Your task to perform on an android device: add a contact in the contacts app Image 0: 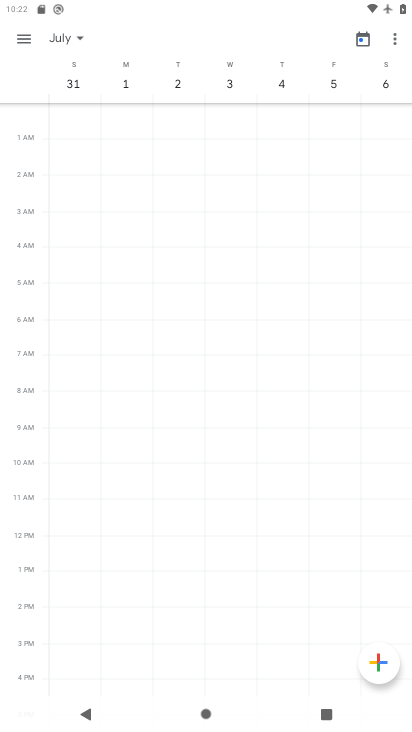
Step 0: press home button
Your task to perform on an android device: add a contact in the contacts app Image 1: 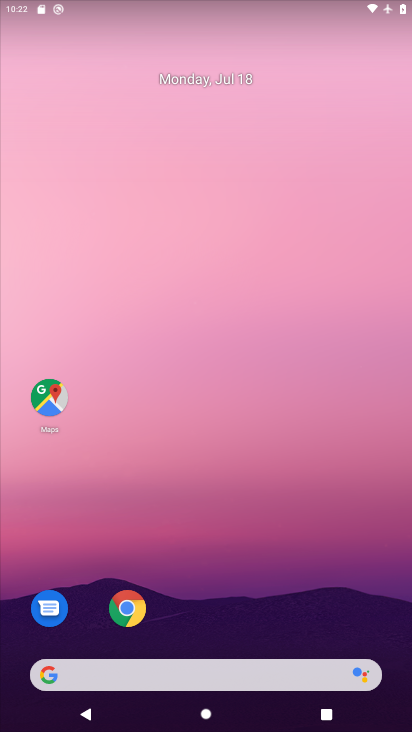
Step 1: drag from (208, 626) to (131, 87)
Your task to perform on an android device: add a contact in the contacts app Image 2: 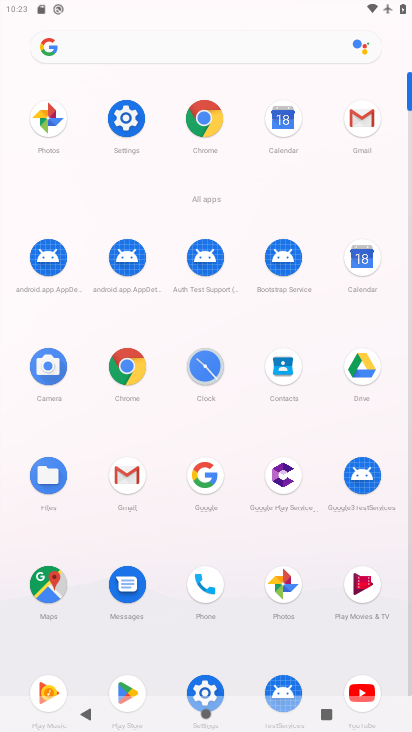
Step 2: click (213, 575)
Your task to perform on an android device: add a contact in the contacts app Image 3: 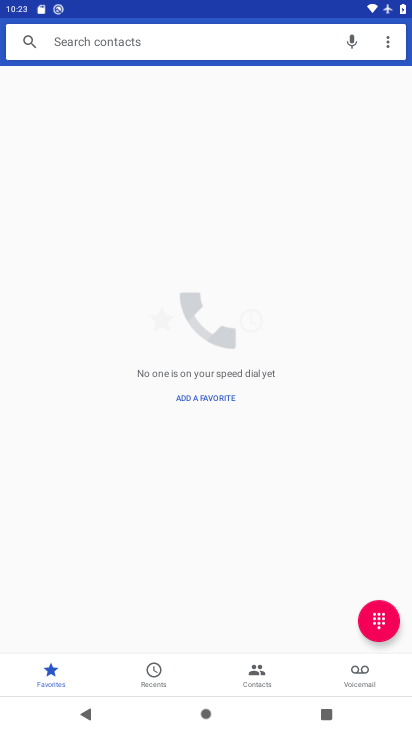
Step 3: click (261, 666)
Your task to perform on an android device: add a contact in the contacts app Image 4: 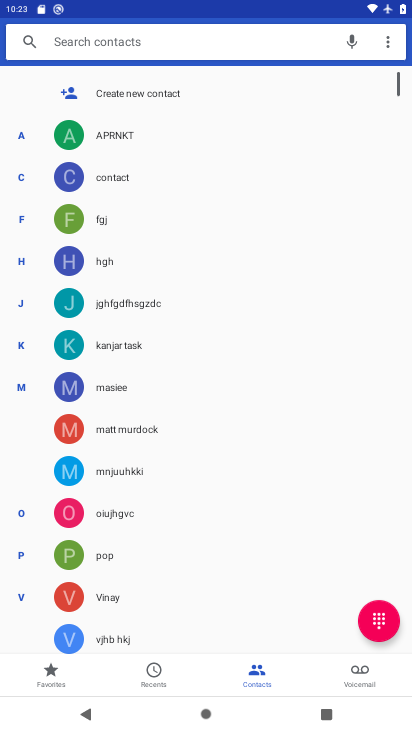
Step 4: click (129, 96)
Your task to perform on an android device: add a contact in the contacts app Image 5: 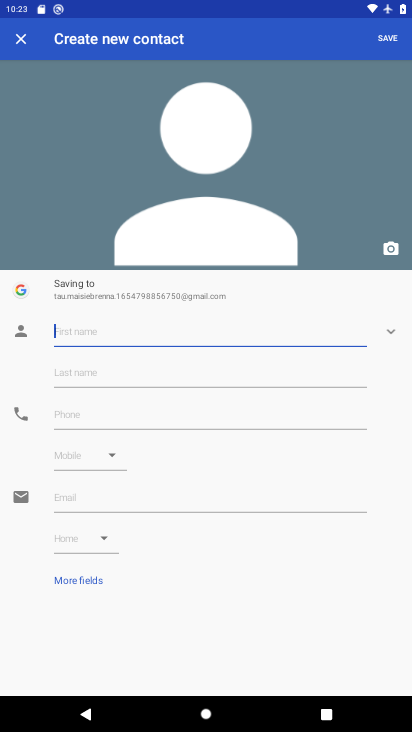
Step 5: type "fgd"
Your task to perform on an android device: add a contact in the contacts app Image 6: 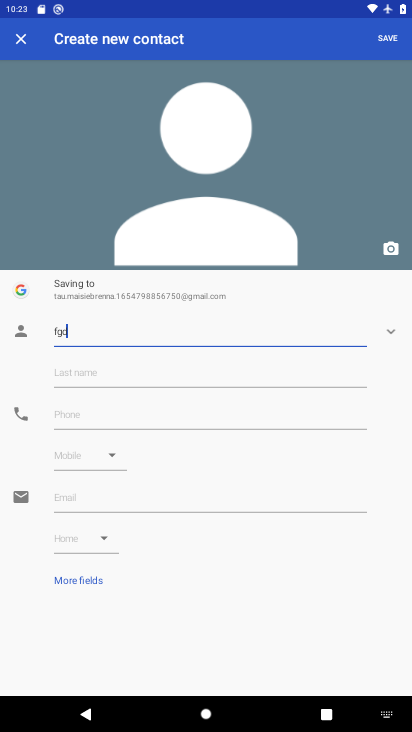
Step 6: type ""
Your task to perform on an android device: add a contact in the contacts app Image 7: 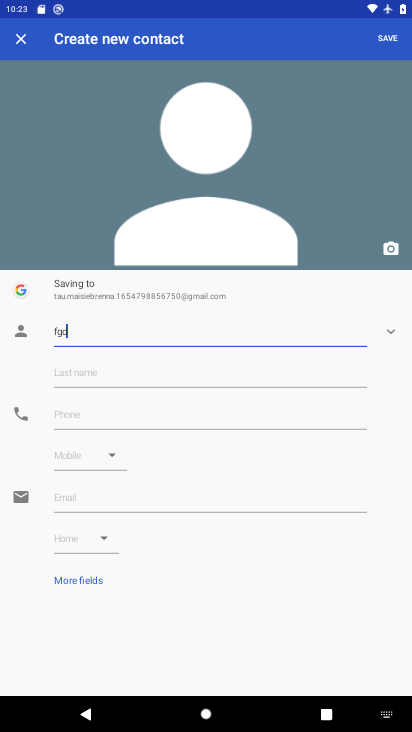
Step 7: click (151, 412)
Your task to perform on an android device: add a contact in the contacts app Image 8: 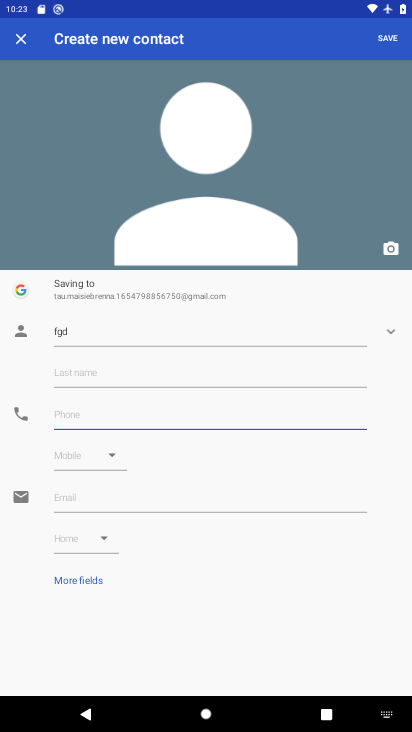
Step 8: type "89098"
Your task to perform on an android device: add a contact in the contacts app Image 9: 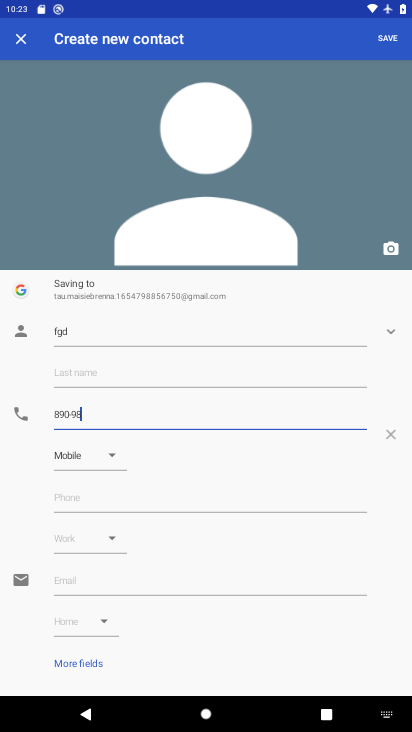
Step 9: type ""
Your task to perform on an android device: add a contact in the contacts app Image 10: 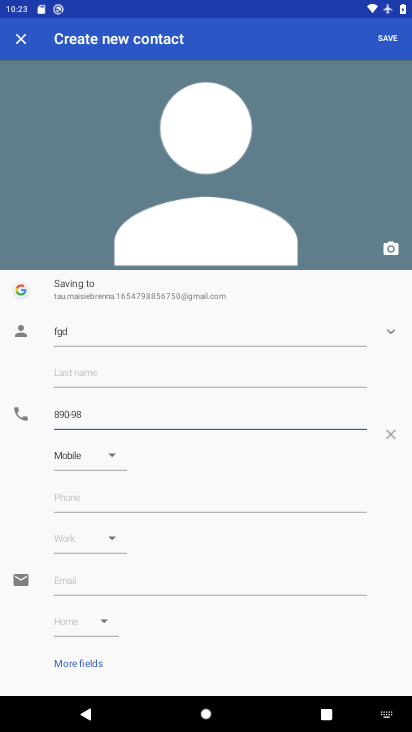
Step 10: click (395, 36)
Your task to perform on an android device: add a contact in the contacts app Image 11: 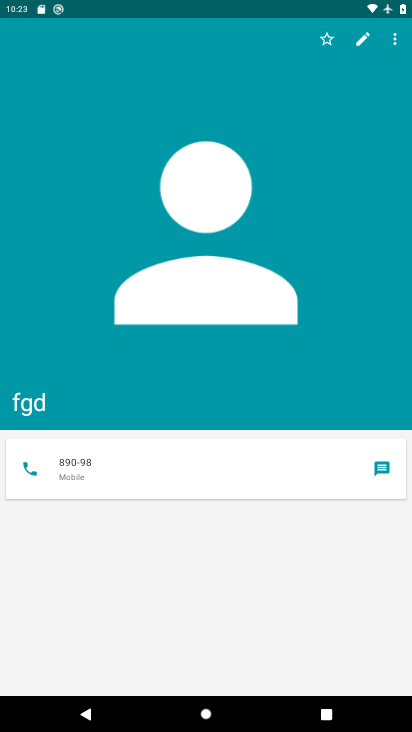
Step 11: task complete